Your task to perform on an android device: toggle pop-ups in chrome Image 0: 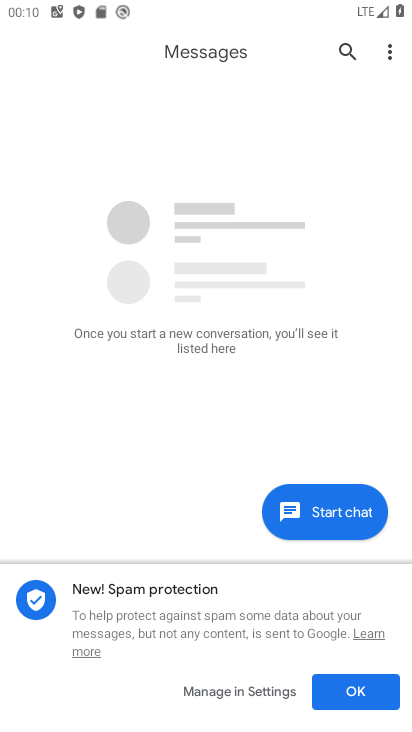
Step 0: press home button
Your task to perform on an android device: toggle pop-ups in chrome Image 1: 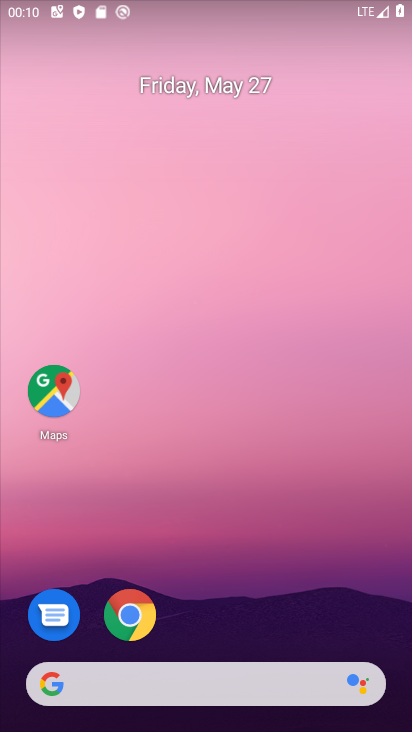
Step 1: click (133, 619)
Your task to perform on an android device: toggle pop-ups in chrome Image 2: 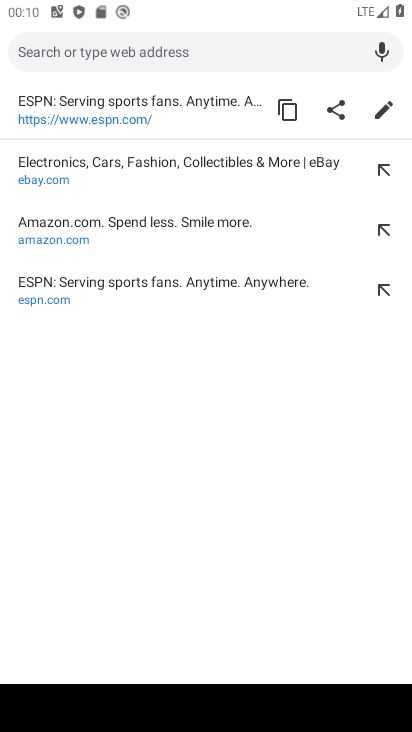
Step 2: press back button
Your task to perform on an android device: toggle pop-ups in chrome Image 3: 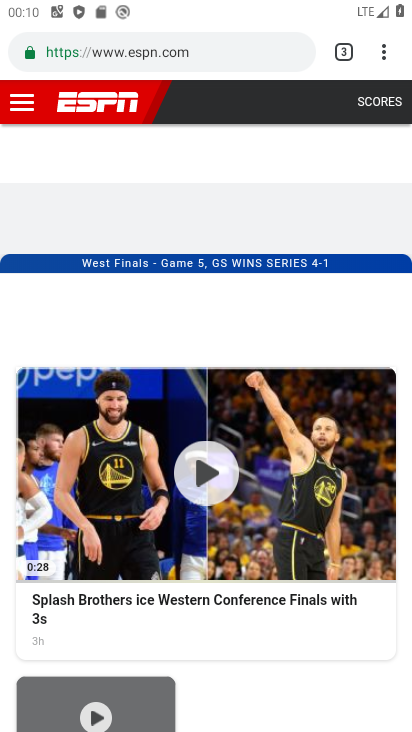
Step 3: drag from (383, 53) to (195, 630)
Your task to perform on an android device: toggle pop-ups in chrome Image 4: 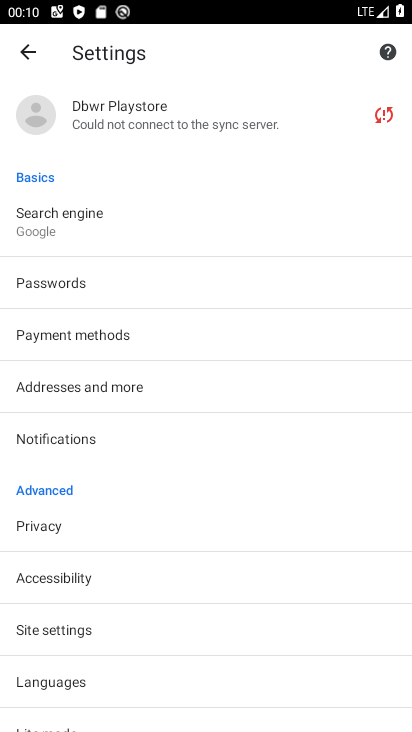
Step 4: click (61, 629)
Your task to perform on an android device: toggle pop-ups in chrome Image 5: 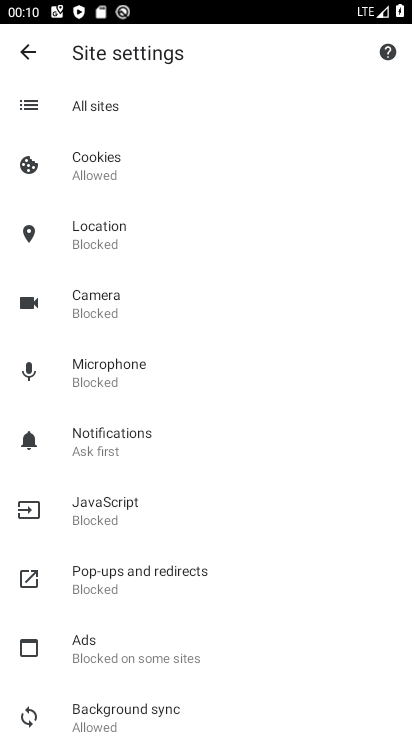
Step 5: click (92, 576)
Your task to perform on an android device: toggle pop-ups in chrome Image 6: 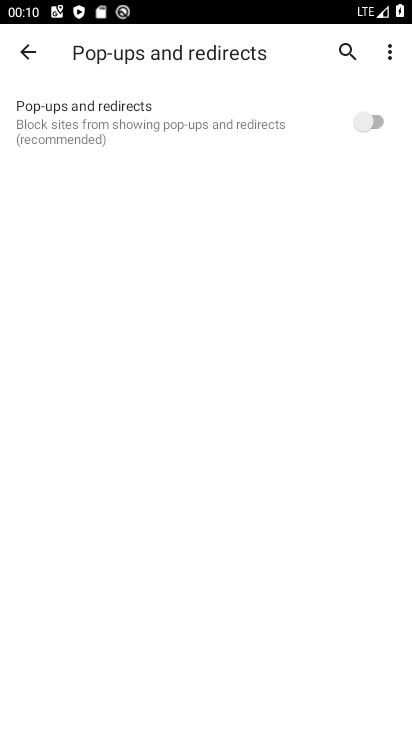
Step 6: click (253, 103)
Your task to perform on an android device: toggle pop-ups in chrome Image 7: 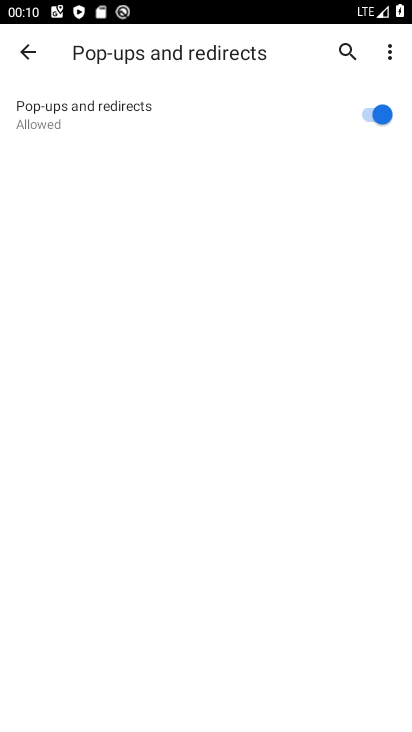
Step 7: task complete